Your task to perform on an android device: Open the web browser Image 0: 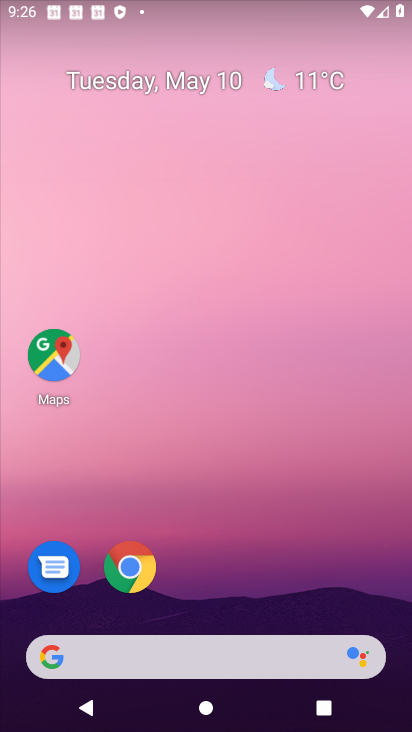
Step 0: click (142, 560)
Your task to perform on an android device: Open the web browser Image 1: 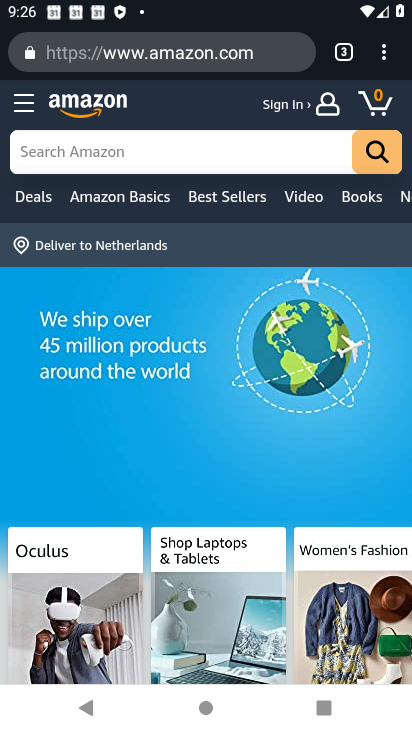
Step 1: task complete